Your task to perform on an android device: Open location settings Image 0: 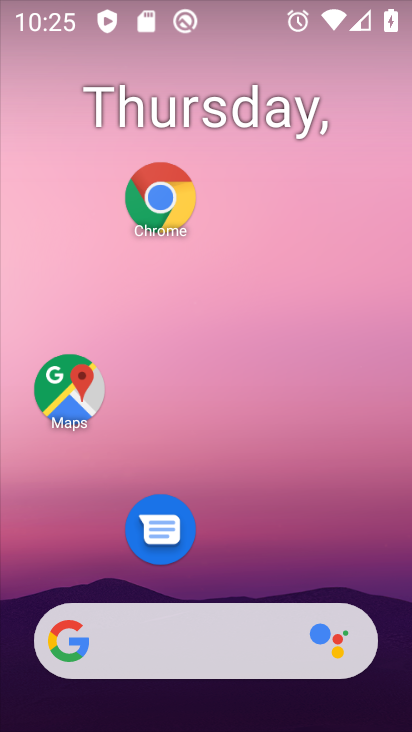
Step 0: drag from (243, 494) to (237, 41)
Your task to perform on an android device: Open location settings Image 1: 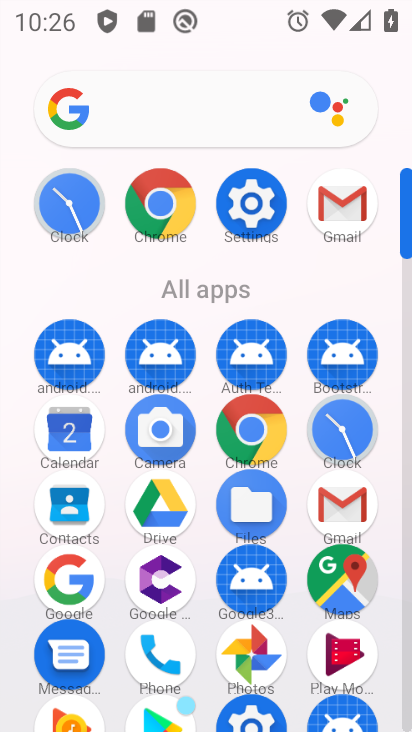
Step 1: click (250, 203)
Your task to perform on an android device: Open location settings Image 2: 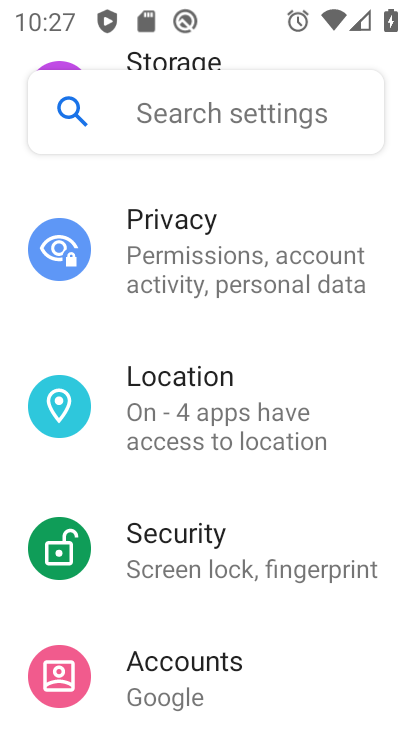
Step 2: click (196, 386)
Your task to perform on an android device: Open location settings Image 3: 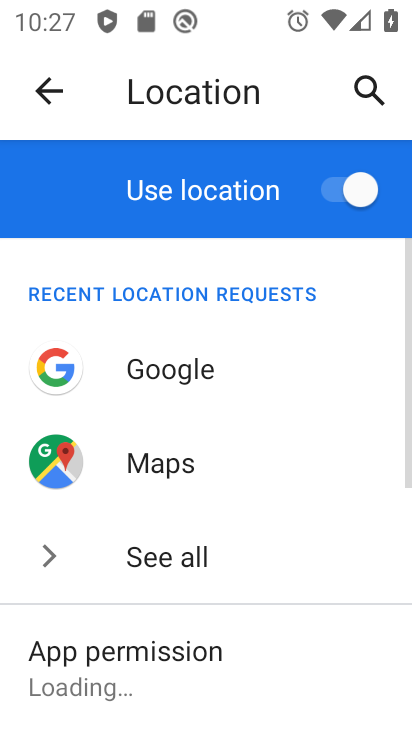
Step 3: task complete